Your task to perform on an android device: open sync settings in chrome Image 0: 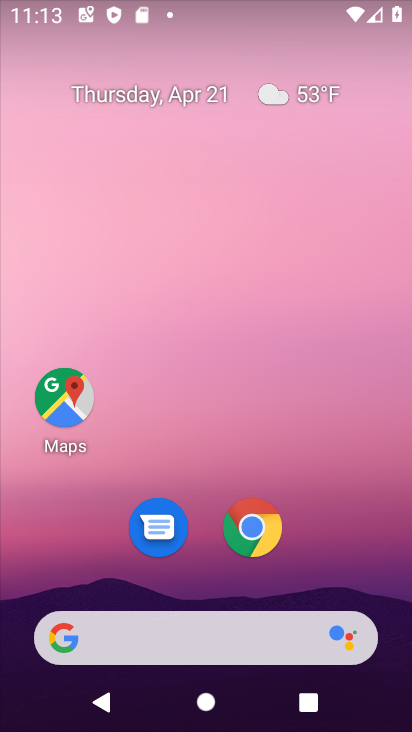
Step 0: drag from (359, 562) to (358, 183)
Your task to perform on an android device: open sync settings in chrome Image 1: 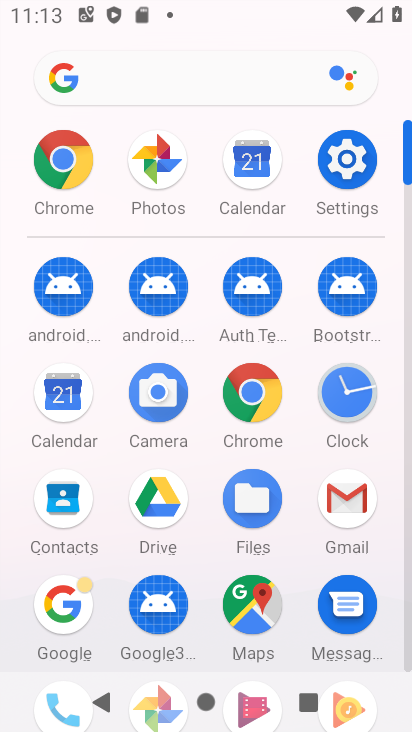
Step 1: click (260, 390)
Your task to perform on an android device: open sync settings in chrome Image 2: 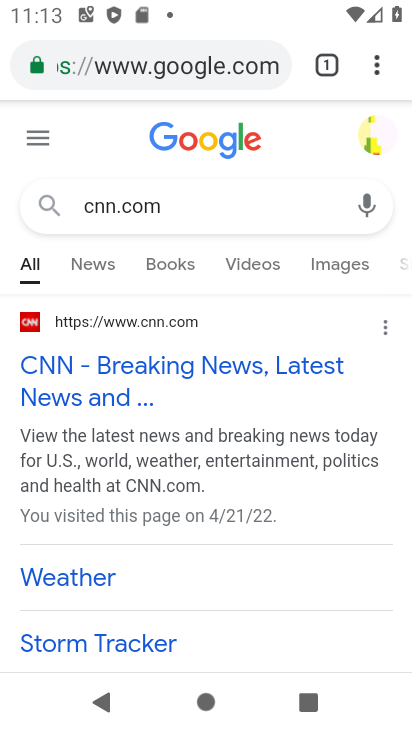
Step 2: click (380, 60)
Your task to perform on an android device: open sync settings in chrome Image 3: 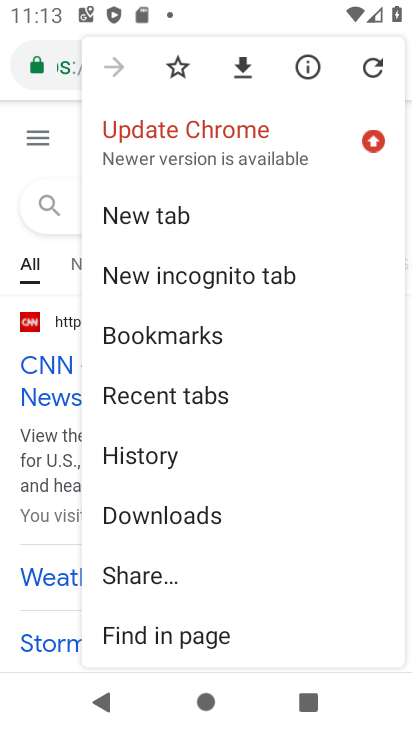
Step 3: drag from (357, 554) to (364, 454)
Your task to perform on an android device: open sync settings in chrome Image 4: 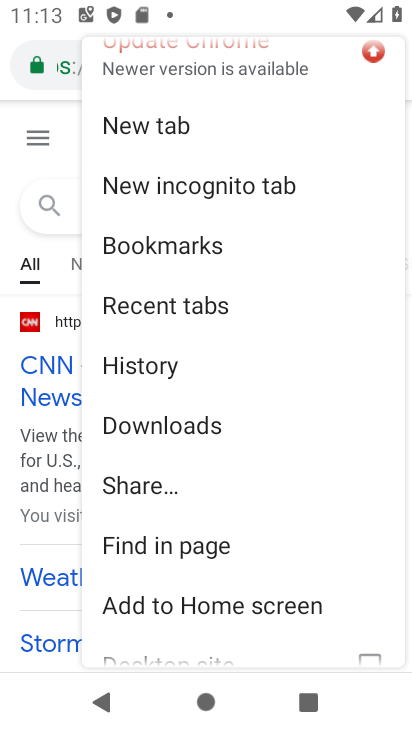
Step 4: drag from (335, 620) to (340, 445)
Your task to perform on an android device: open sync settings in chrome Image 5: 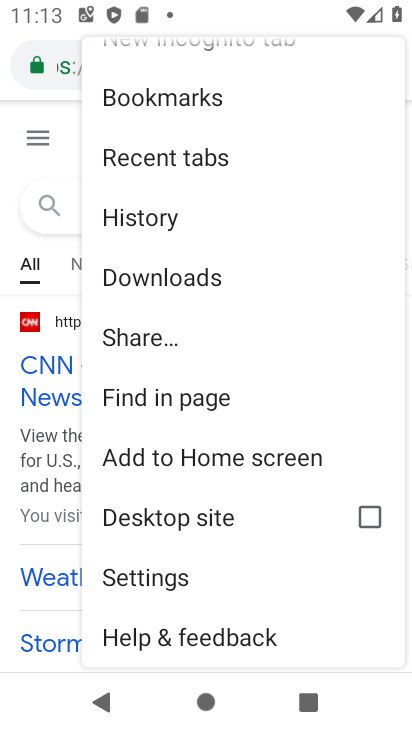
Step 5: drag from (316, 601) to (319, 485)
Your task to perform on an android device: open sync settings in chrome Image 6: 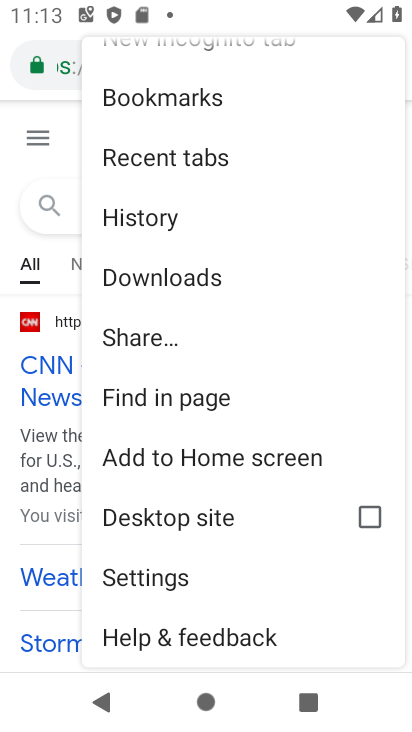
Step 6: click (188, 587)
Your task to perform on an android device: open sync settings in chrome Image 7: 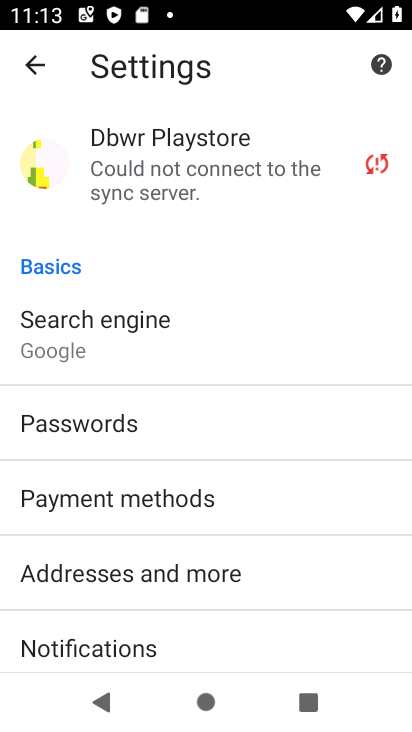
Step 7: drag from (313, 632) to (313, 481)
Your task to perform on an android device: open sync settings in chrome Image 8: 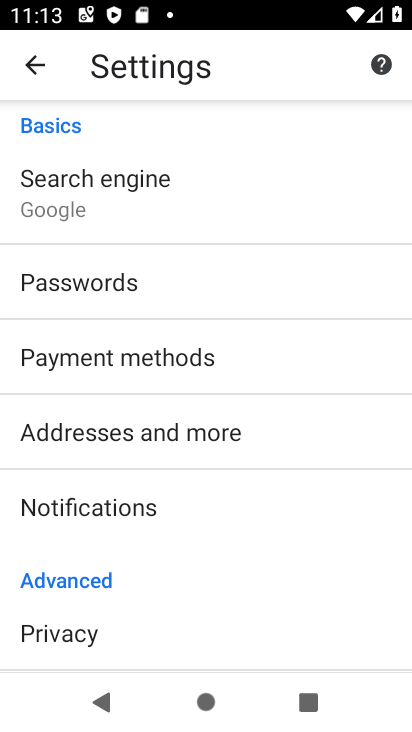
Step 8: drag from (292, 620) to (305, 478)
Your task to perform on an android device: open sync settings in chrome Image 9: 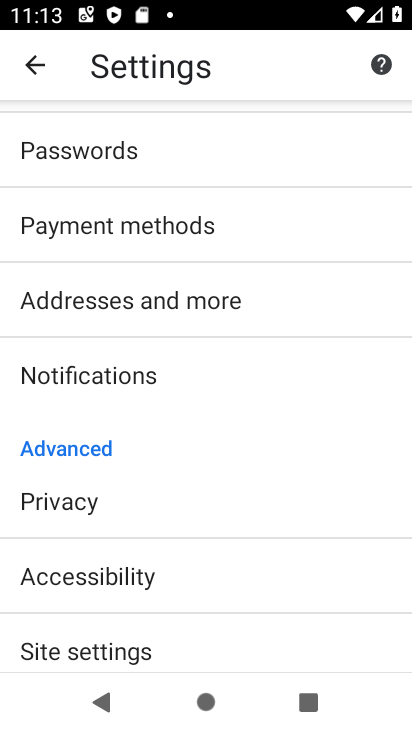
Step 9: drag from (290, 639) to (275, 481)
Your task to perform on an android device: open sync settings in chrome Image 10: 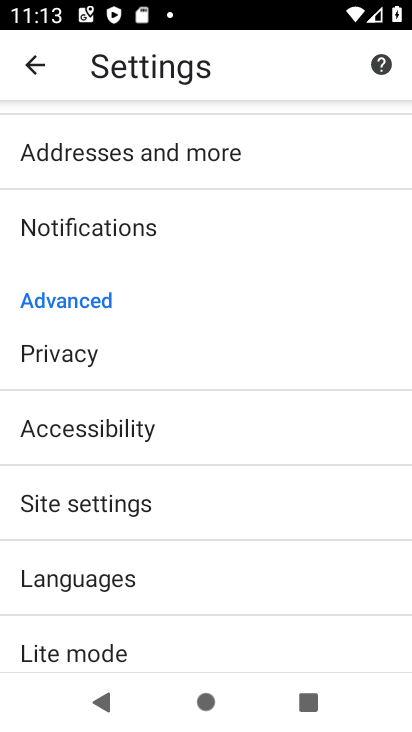
Step 10: drag from (272, 631) to (278, 508)
Your task to perform on an android device: open sync settings in chrome Image 11: 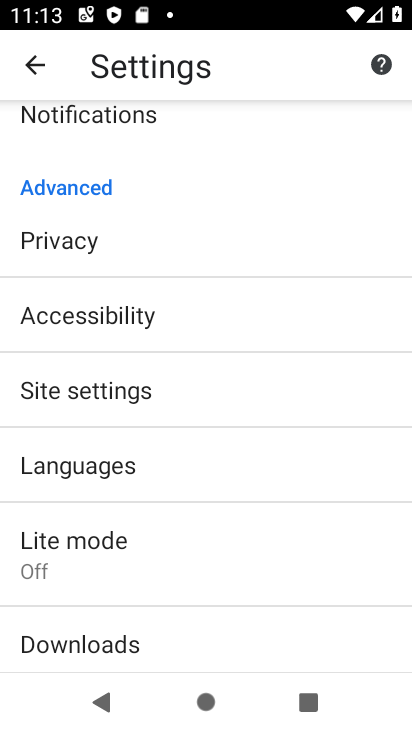
Step 11: drag from (269, 639) to (263, 498)
Your task to perform on an android device: open sync settings in chrome Image 12: 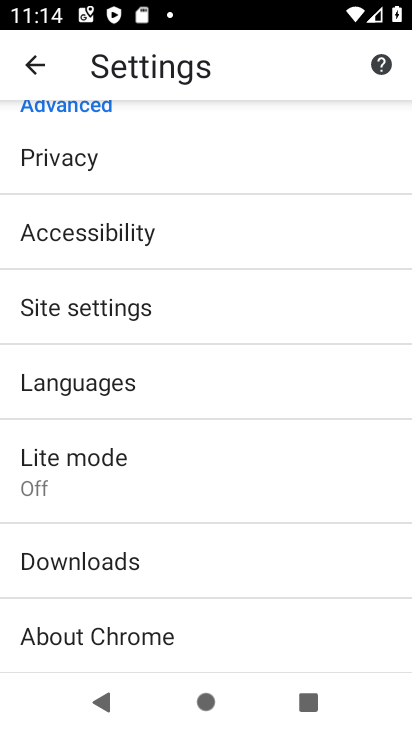
Step 12: drag from (249, 619) to (237, 494)
Your task to perform on an android device: open sync settings in chrome Image 13: 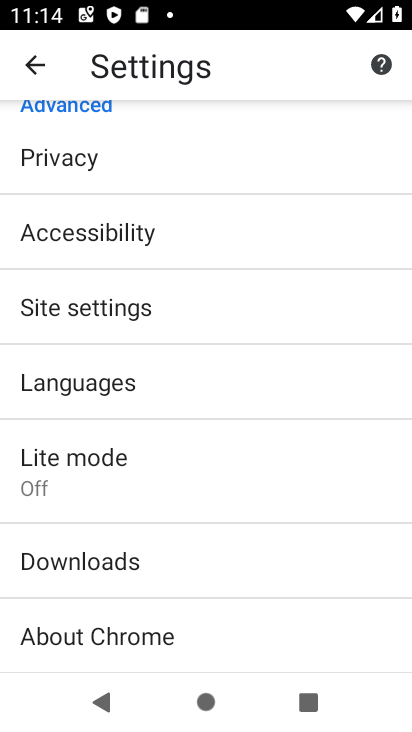
Step 13: click (186, 316)
Your task to perform on an android device: open sync settings in chrome Image 14: 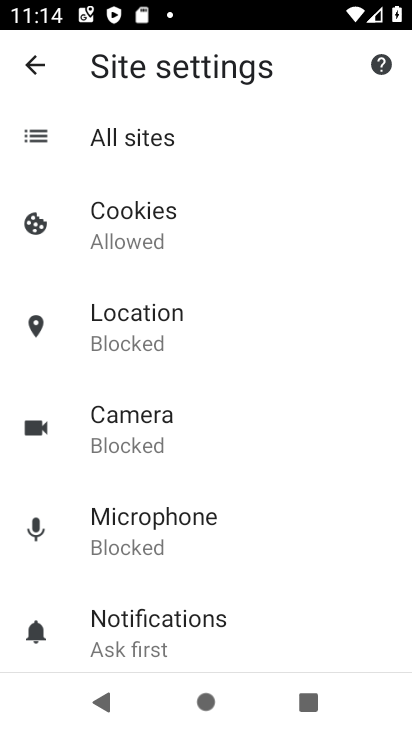
Step 14: drag from (293, 580) to (300, 457)
Your task to perform on an android device: open sync settings in chrome Image 15: 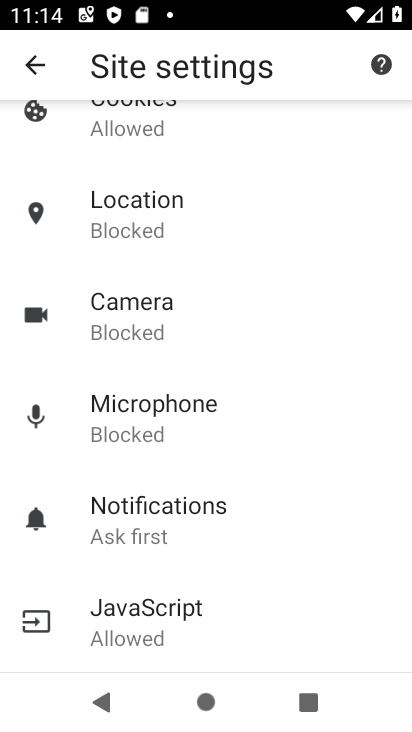
Step 15: drag from (293, 596) to (308, 443)
Your task to perform on an android device: open sync settings in chrome Image 16: 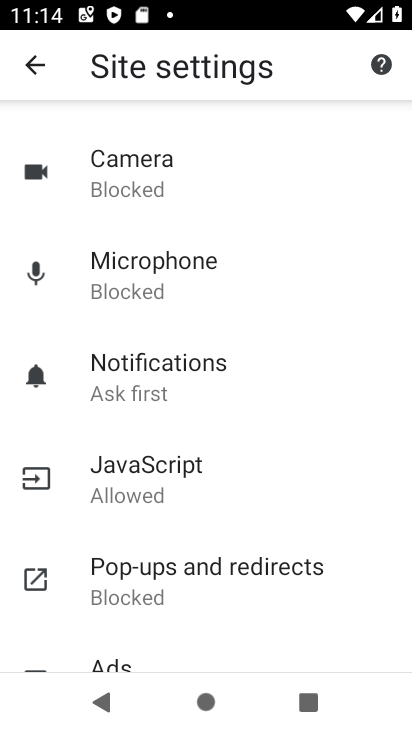
Step 16: drag from (341, 607) to (349, 474)
Your task to perform on an android device: open sync settings in chrome Image 17: 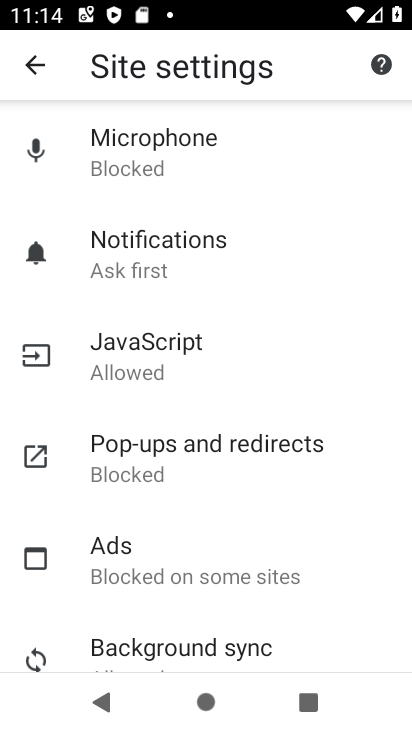
Step 17: drag from (331, 609) to (335, 447)
Your task to perform on an android device: open sync settings in chrome Image 18: 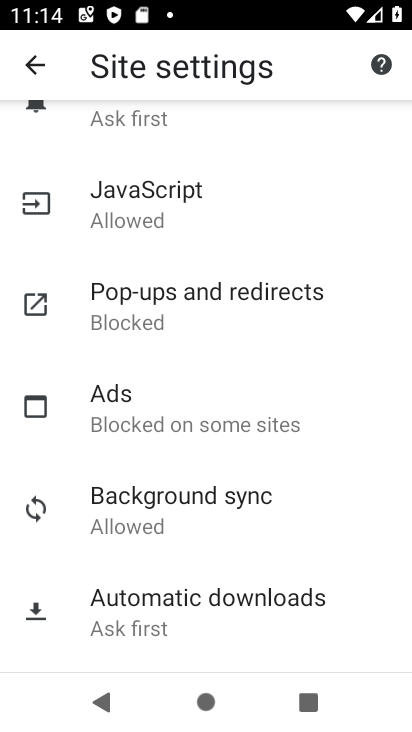
Step 18: click (229, 523)
Your task to perform on an android device: open sync settings in chrome Image 19: 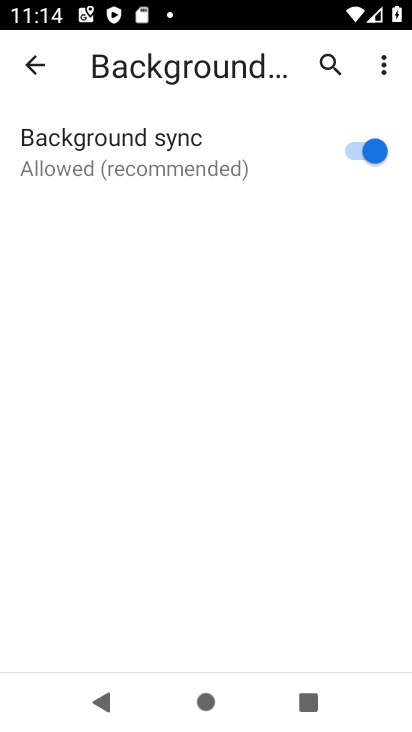
Step 19: task complete